Your task to perform on an android device: What's on my calendar today? Image 0: 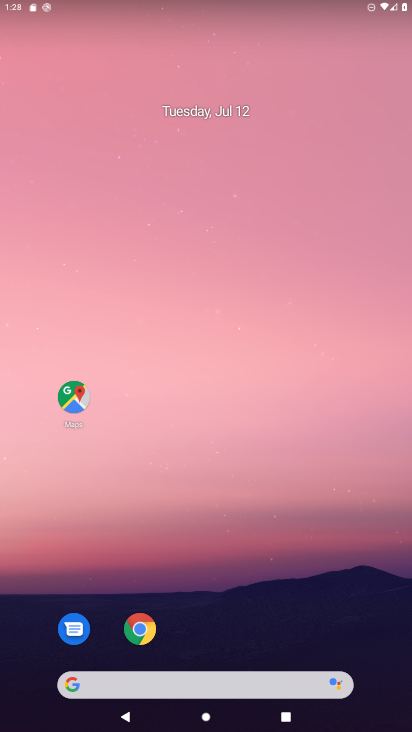
Step 0: drag from (229, 651) to (282, 54)
Your task to perform on an android device: What's on my calendar today? Image 1: 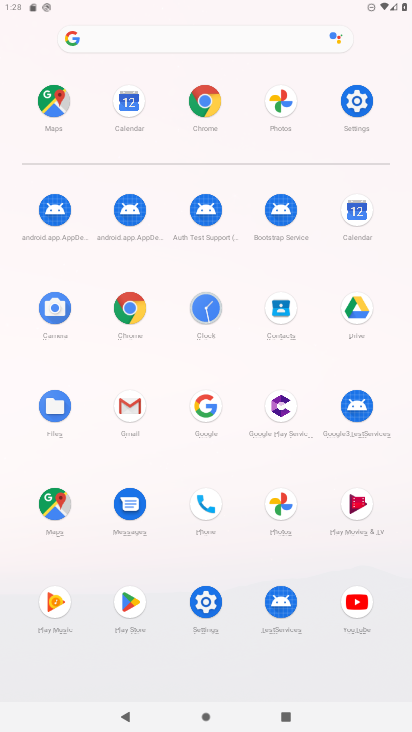
Step 1: click (353, 203)
Your task to perform on an android device: What's on my calendar today? Image 2: 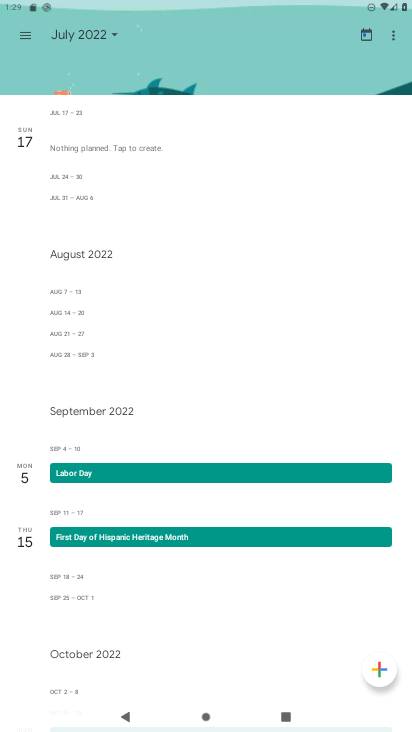
Step 2: click (22, 36)
Your task to perform on an android device: What's on my calendar today? Image 3: 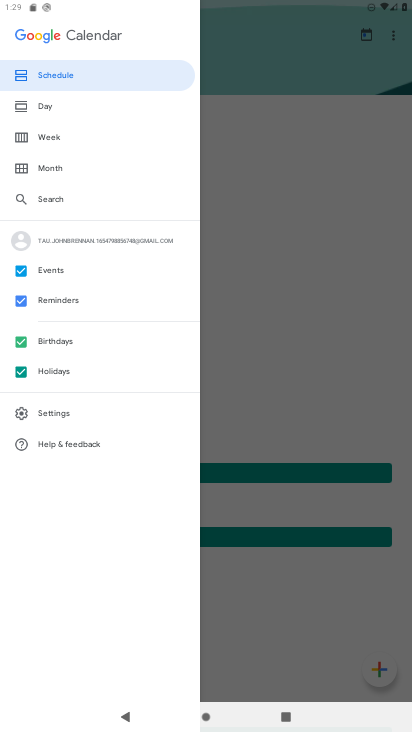
Step 3: click (58, 106)
Your task to perform on an android device: What's on my calendar today? Image 4: 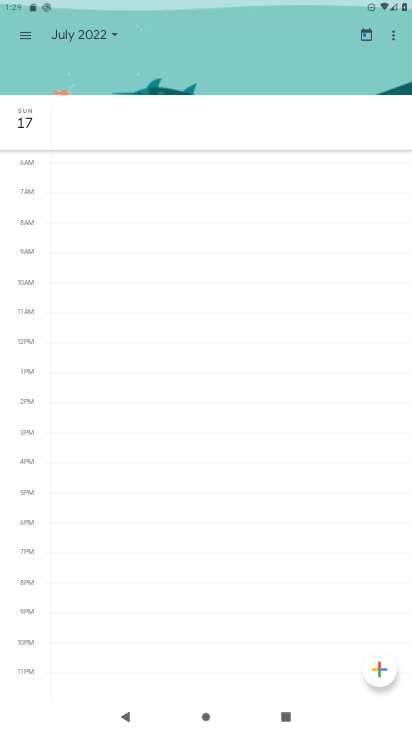
Step 4: task complete